Your task to perform on an android device: Go to network settings Image 0: 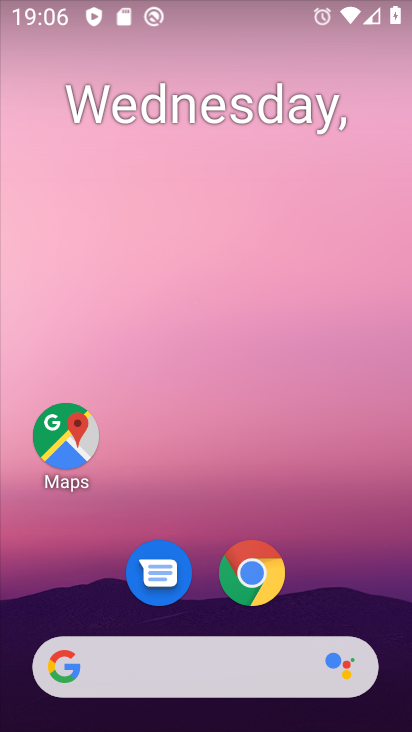
Step 0: drag from (329, 639) to (324, 15)
Your task to perform on an android device: Go to network settings Image 1: 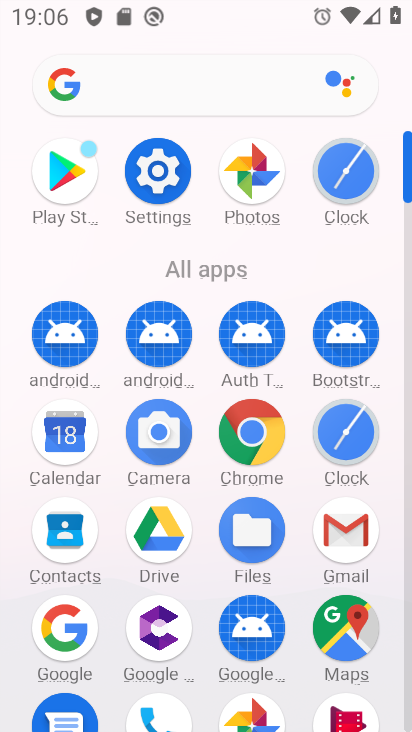
Step 1: drag from (275, 276) to (253, 218)
Your task to perform on an android device: Go to network settings Image 2: 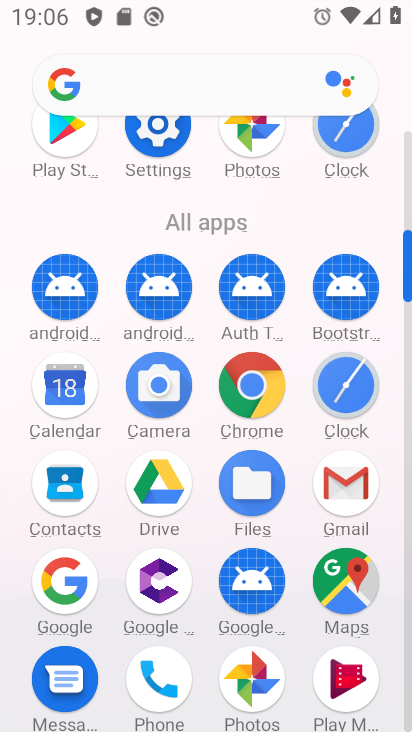
Step 2: click (155, 151)
Your task to perform on an android device: Go to network settings Image 3: 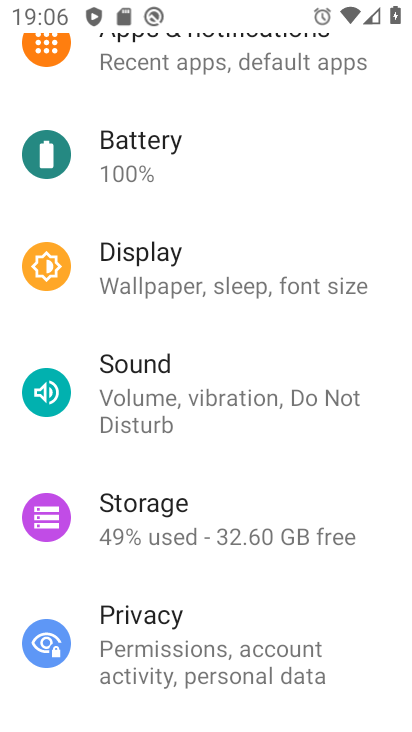
Step 3: drag from (358, 558) to (332, 136)
Your task to perform on an android device: Go to network settings Image 4: 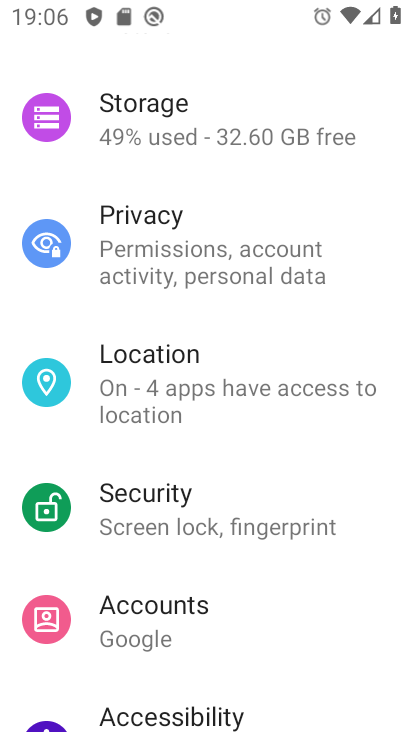
Step 4: drag from (317, 672) to (287, 730)
Your task to perform on an android device: Go to network settings Image 5: 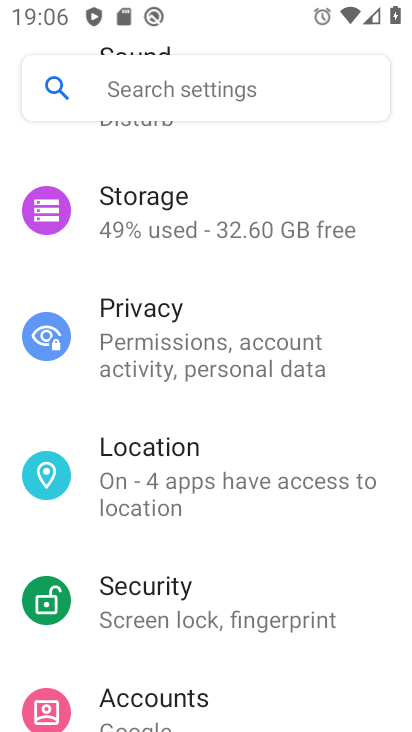
Step 5: drag from (293, 280) to (310, 700)
Your task to perform on an android device: Go to network settings Image 6: 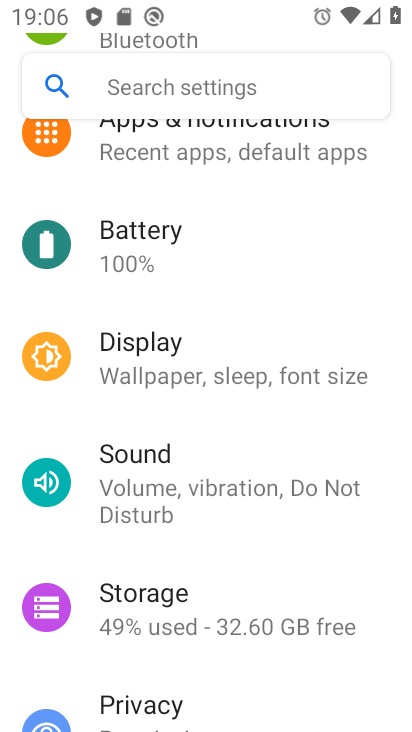
Step 6: drag from (282, 317) to (277, 651)
Your task to perform on an android device: Go to network settings Image 7: 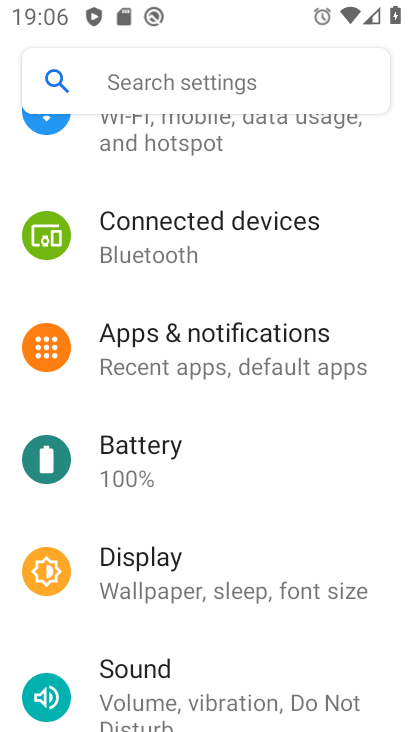
Step 7: click (181, 152)
Your task to perform on an android device: Go to network settings Image 8: 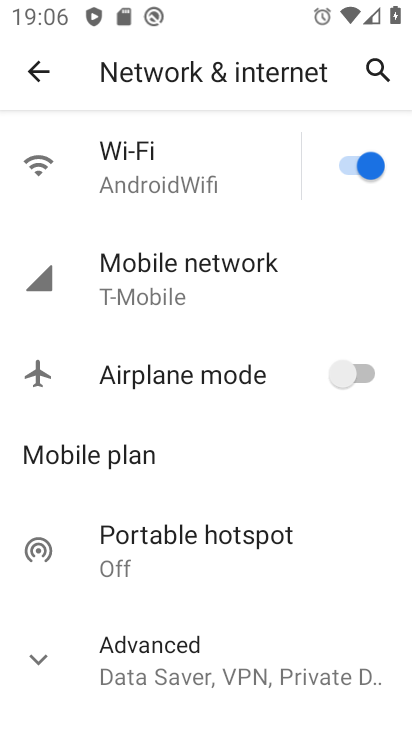
Step 8: task complete